Your task to perform on an android device: Open privacy settings Image 0: 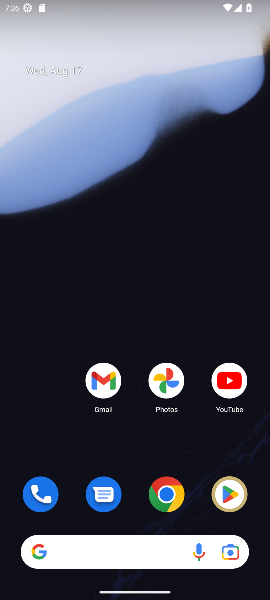
Step 0: drag from (123, 506) to (141, 61)
Your task to perform on an android device: Open privacy settings Image 1: 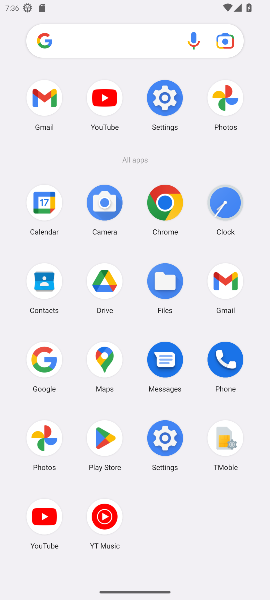
Step 1: click (161, 96)
Your task to perform on an android device: Open privacy settings Image 2: 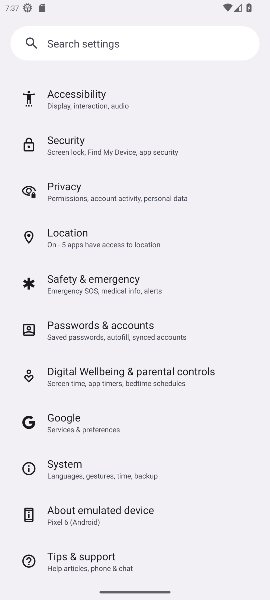
Step 2: click (38, 185)
Your task to perform on an android device: Open privacy settings Image 3: 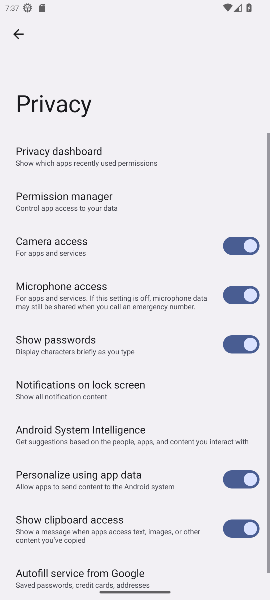
Step 3: task complete